Your task to perform on an android device: Open ESPN.com Image 0: 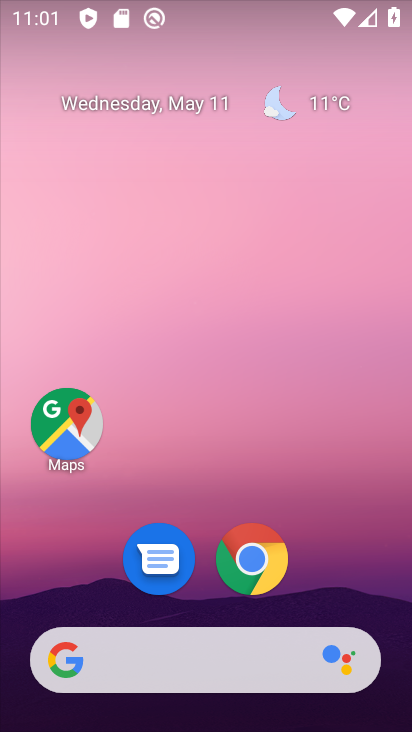
Step 0: click (273, 562)
Your task to perform on an android device: Open ESPN.com Image 1: 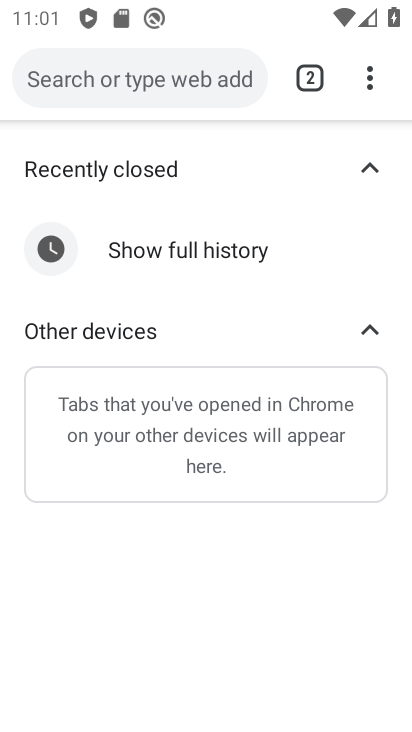
Step 1: click (138, 70)
Your task to perform on an android device: Open ESPN.com Image 2: 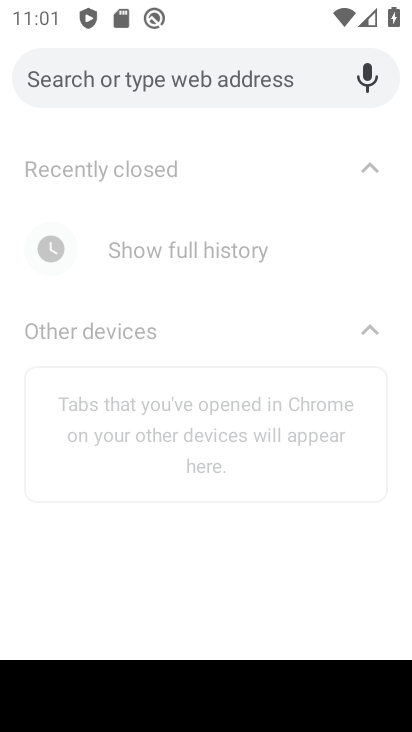
Step 2: click (136, 72)
Your task to perform on an android device: Open ESPN.com Image 3: 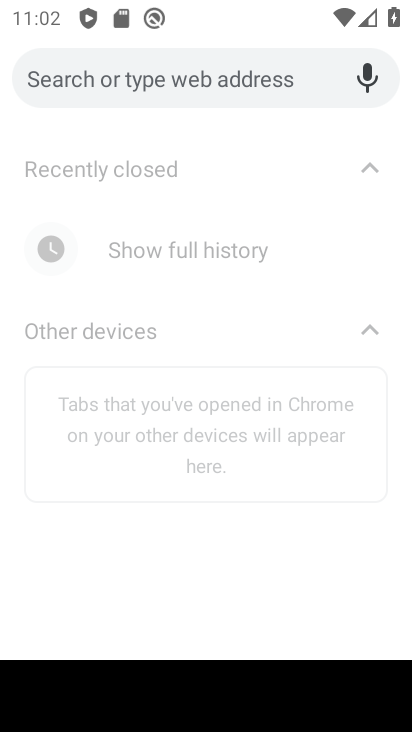
Step 3: type "epsn.com"
Your task to perform on an android device: Open ESPN.com Image 4: 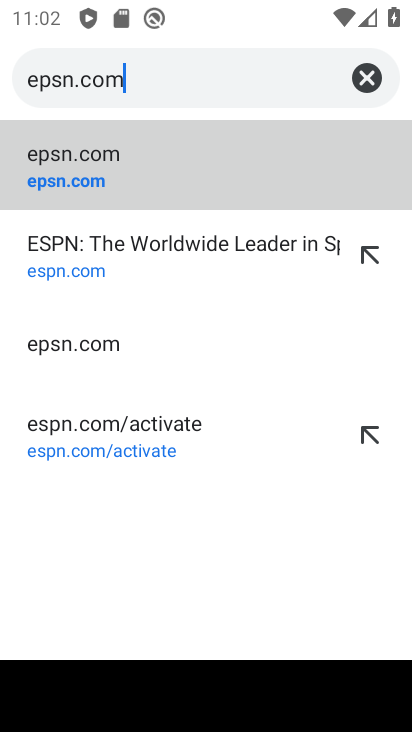
Step 4: click (178, 149)
Your task to perform on an android device: Open ESPN.com Image 5: 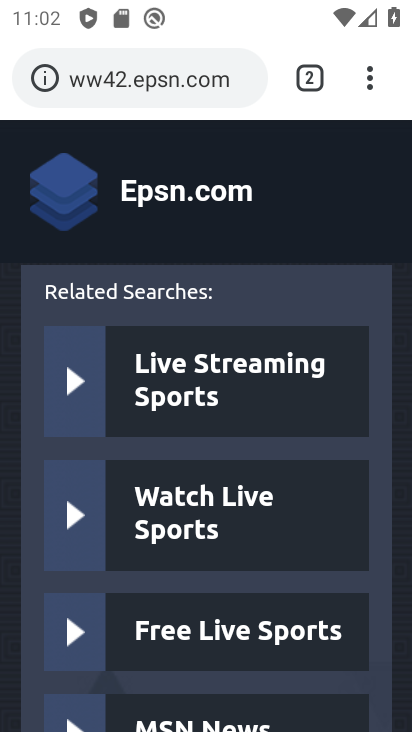
Step 5: task complete